Your task to perform on an android device: toggle notifications settings in the gmail app Image 0: 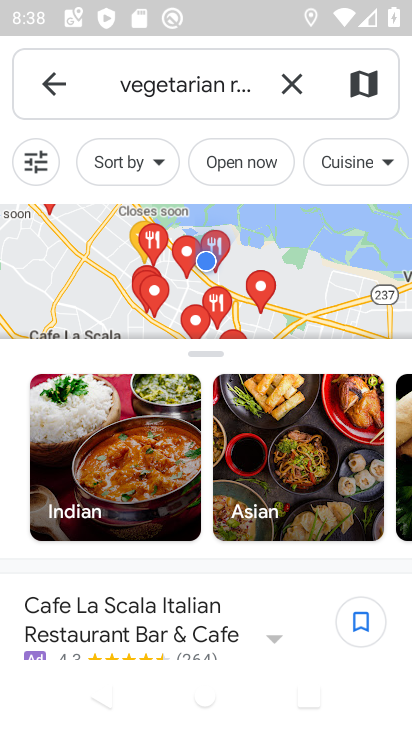
Step 0: press home button
Your task to perform on an android device: toggle notifications settings in the gmail app Image 1: 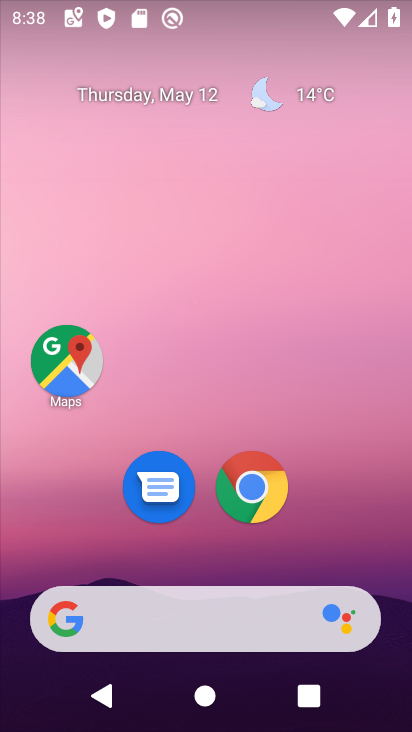
Step 1: drag from (42, 549) to (170, 267)
Your task to perform on an android device: toggle notifications settings in the gmail app Image 2: 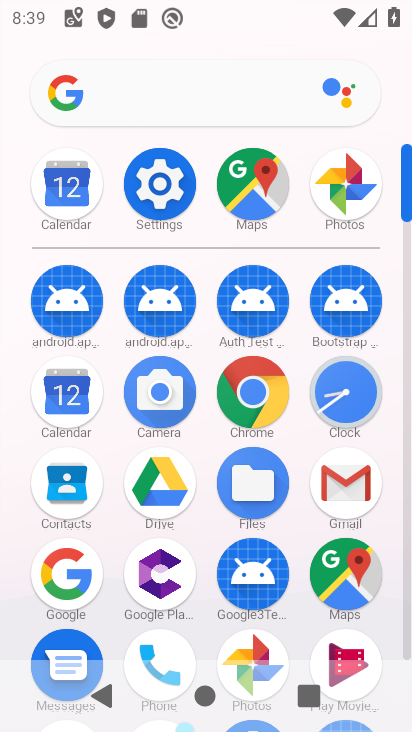
Step 2: click (349, 481)
Your task to perform on an android device: toggle notifications settings in the gmail app Image 3: 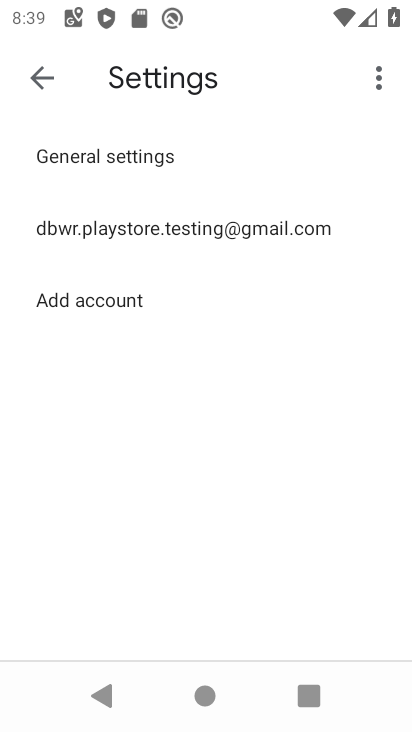
Step 3: click (100, 232)
Your task to perform on an android device: toggle notifications settings in the gmail app Image 4: 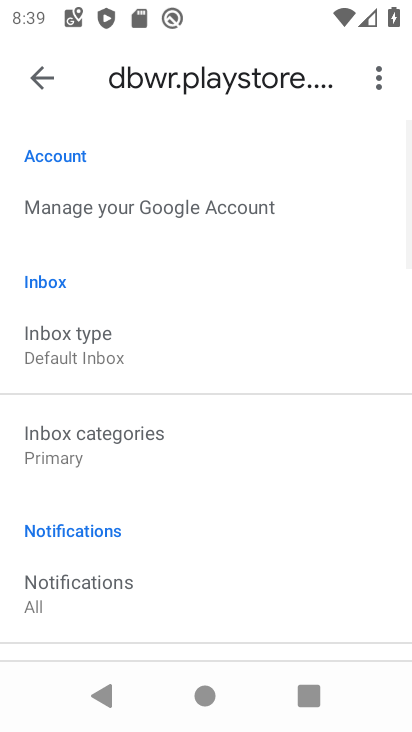
Step 4: drag from (58, 626) to (251, 182)
Your task to perform on an android device: toggle notifications settings in the gmail app Image 5: 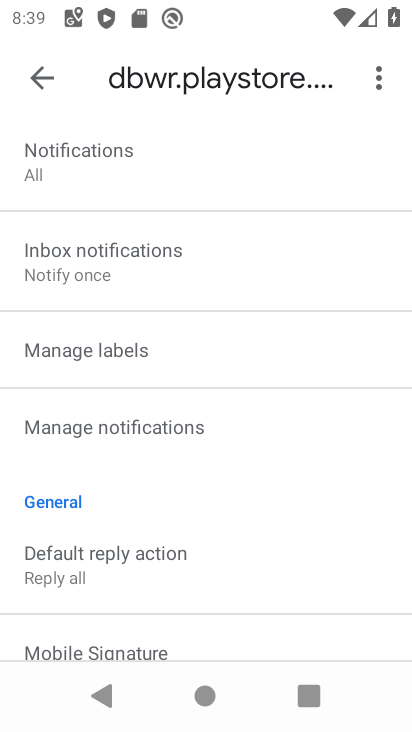
Step 5: click (138, 169)
Your task to perform on an android device: toggle notifications settings in the gmail app Image 6: 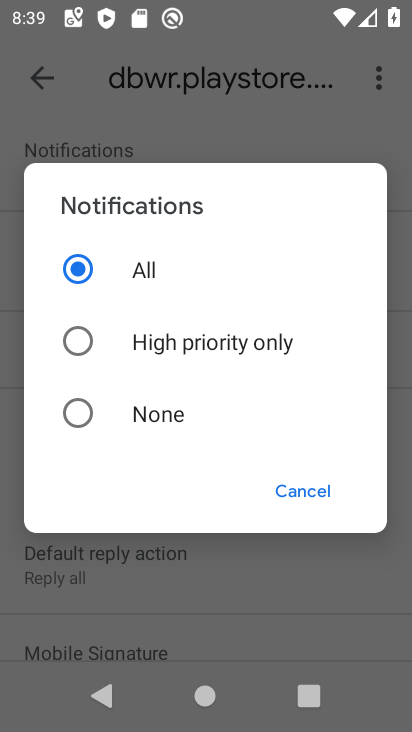
Step 6: click (300, 506)
Your task to perform on an android device: toggle notifications settings in the gmail app Image 7: 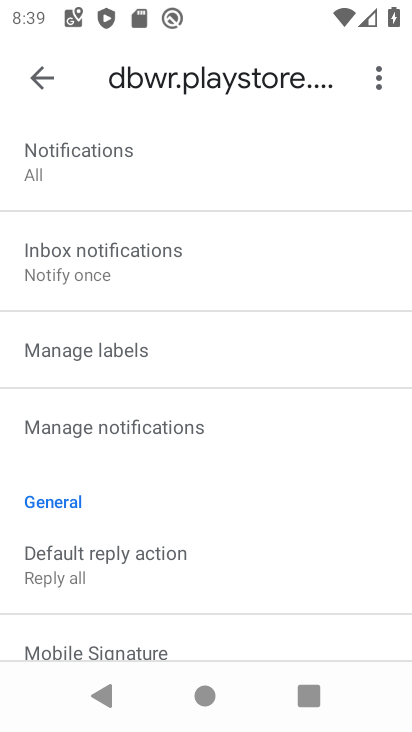
Step 7: click (146, 271)
Your task to perform on an android device: toggle notifications settings in the gmail app Image 8: 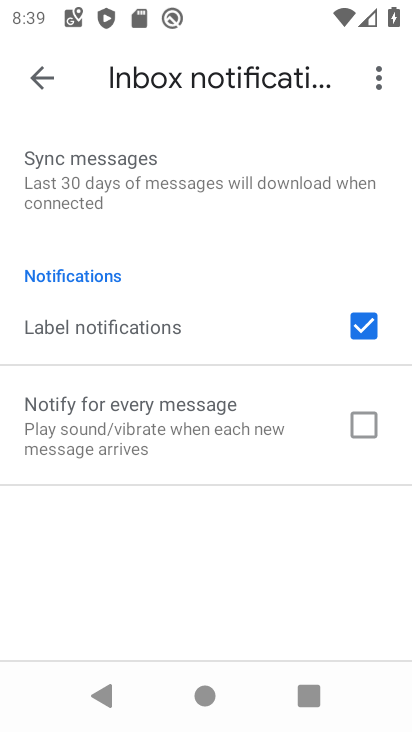
Step 8: task complete